Your task to perform on an android device: star an email in the gmail app Image 0: 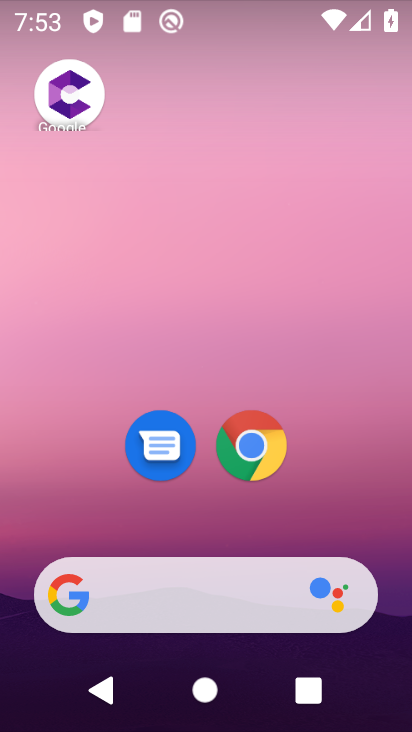
Step 0: drag from (229, 728) to (221, 26)
Your task to perform on an android device: star an email in the gmail app Image 1: 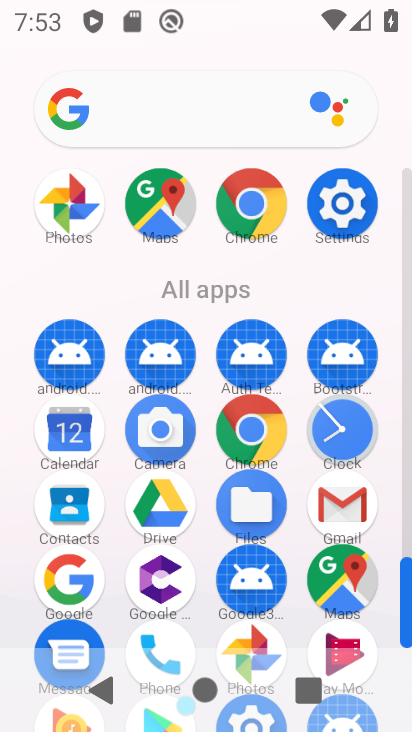
Step 1: click (352, 507)
Your task to perform on an android device: star an email in the gmail app Image 2: 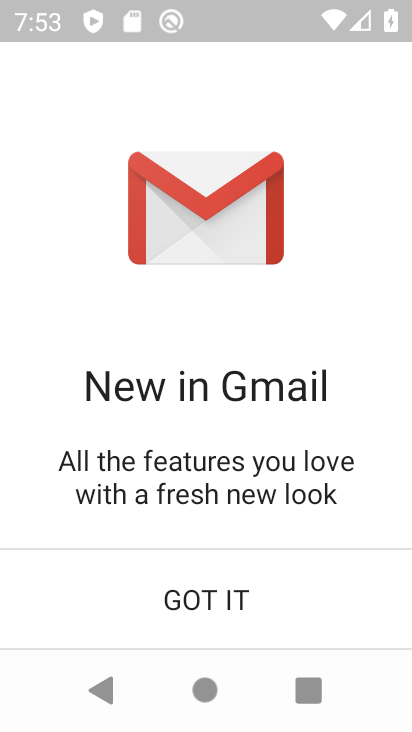
Step 2: click (208, 596)
Your task to perform on an android device: star an email in the gmail app Image 3: 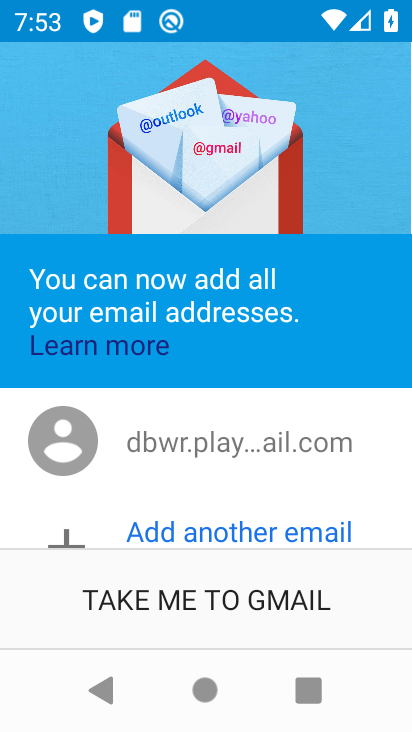
Step 3: click (208, 590)
Your task to perform on an android device: star an email in the gmail app Image 4: 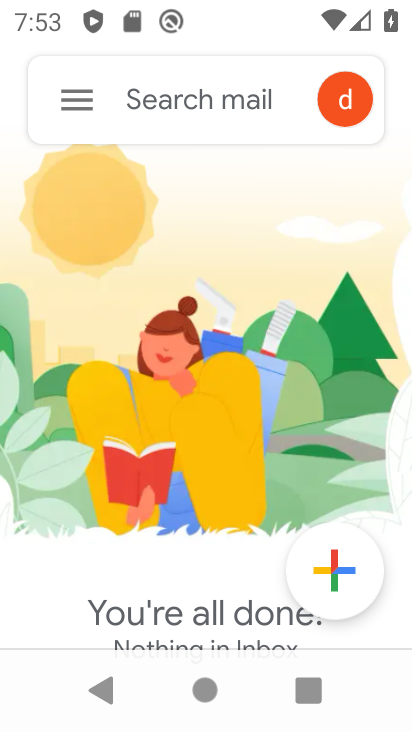
Step 4: task complete